Your task to perform on an android device: Open Google Chrome Image 0: 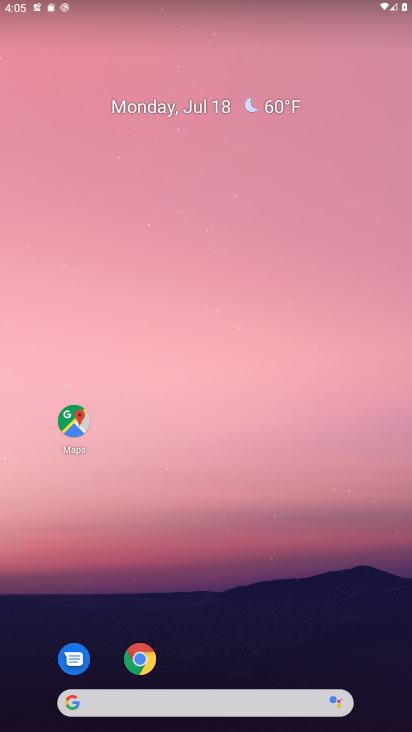
Step 0: drag from (303, 707) to (349, 5)
Your task to perform on an android device: Open Google Chrome Image 1: 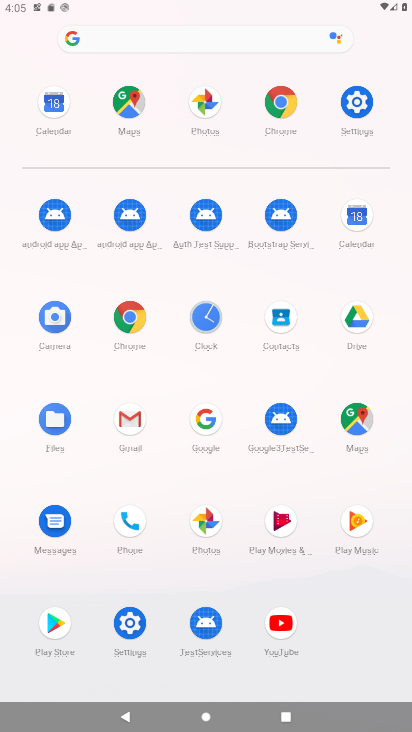
Step 1: click (124, 317)
Your task to perform on an android device: Open Google Chrome Image 2: 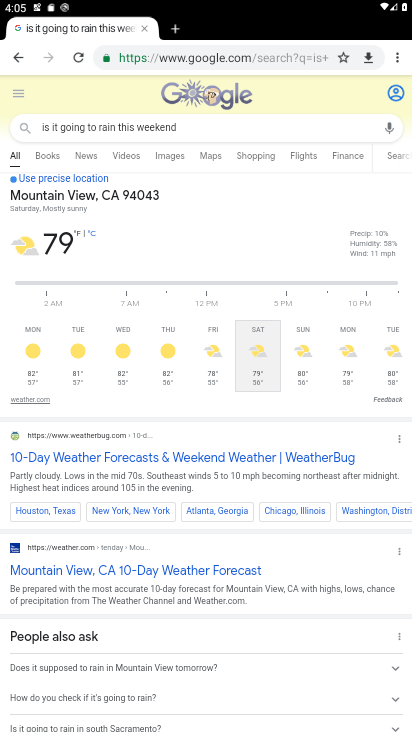
Step 2: click (396, 55)
Your task to perform on an android device: Open Google Chrome Image 3: 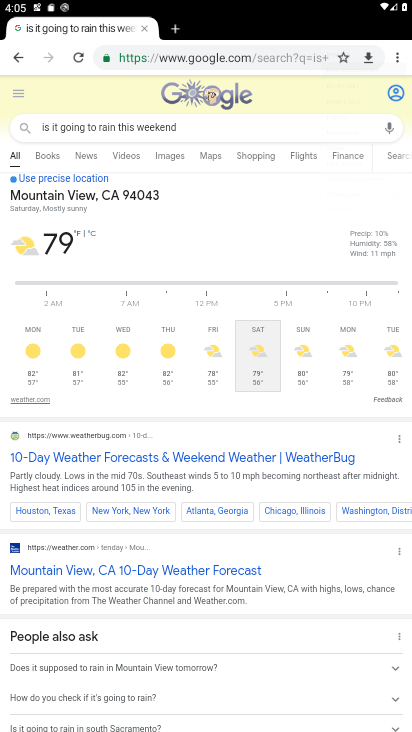
Step 3: click (356, 83)
Your task to perform on an android device: Open Google Chrome Image 4: 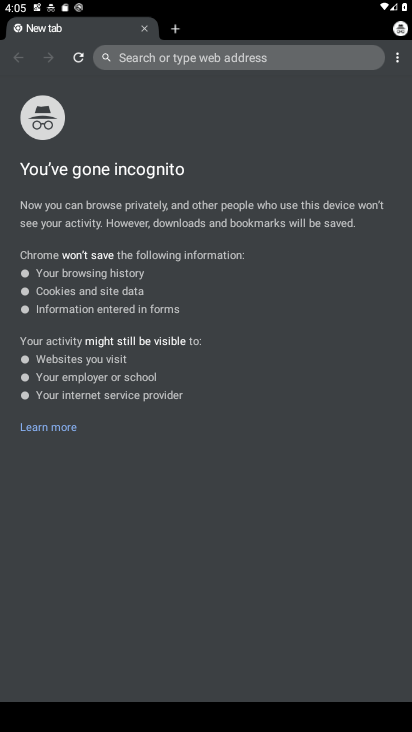
Step 4: click (394, 58)
Your task to perform on an android device: Open Google Chrome Image 5: 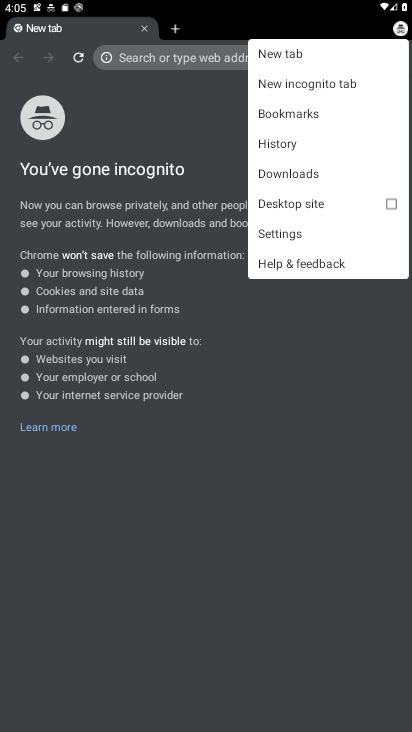
Step 5: click (320, 56)
Your task to perform on an android device: Open Google Chrome Image 6: 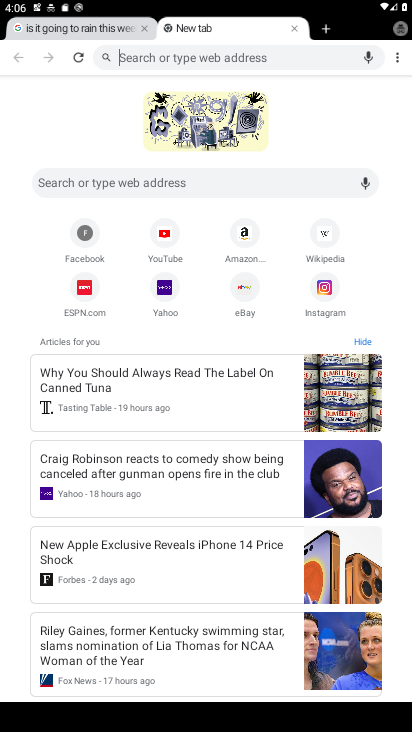
Step 6: task complete